Your task to perform on an android device: stop showing notifications on the lock screen Image 0: 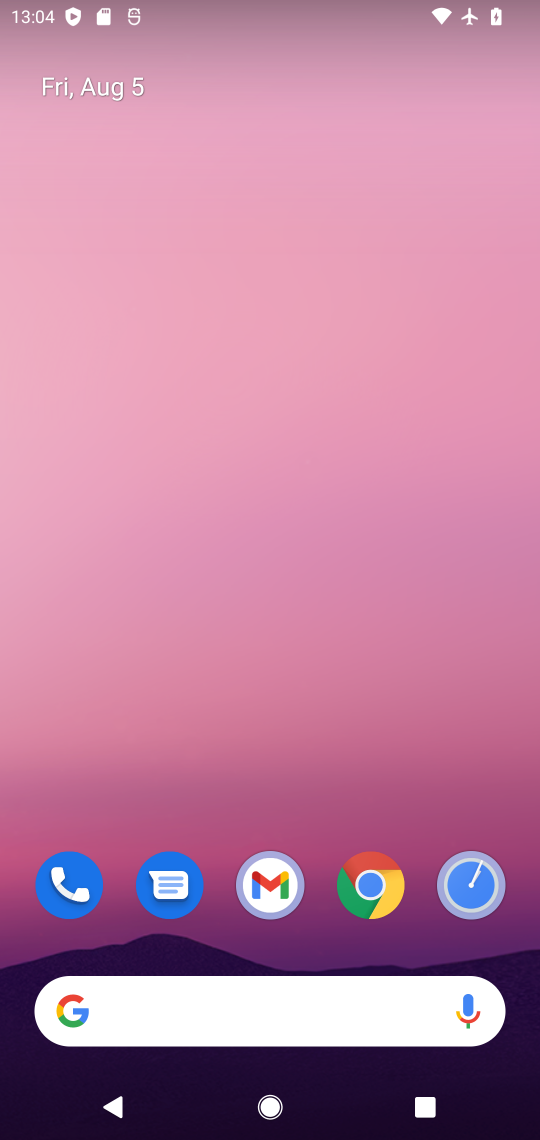
Step 0: drag from (318, 551) to (333, 34)
Your task to perform on an android device: stop showing notifications on the lock screen Image 1: 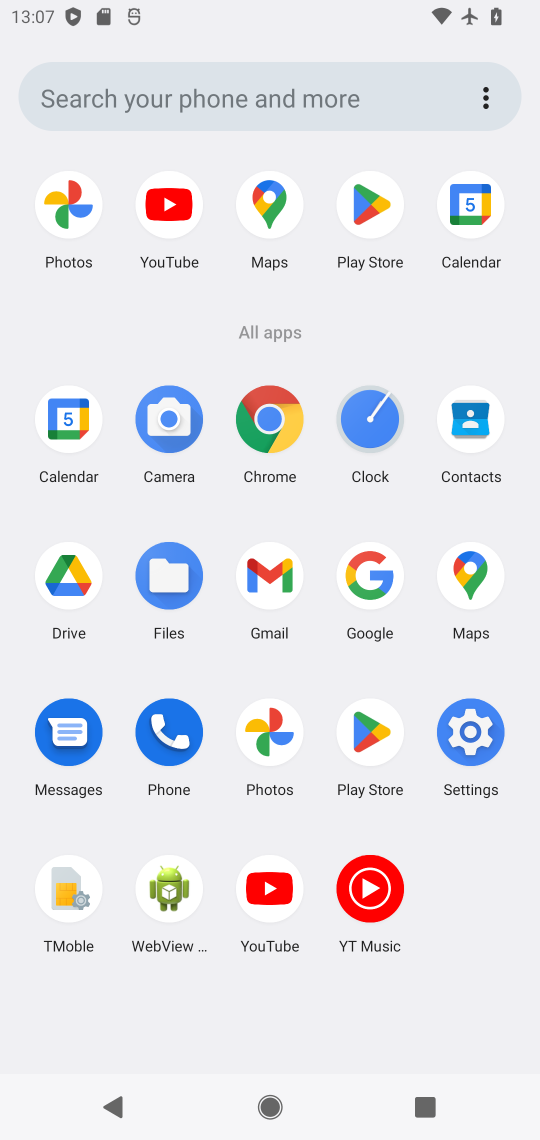
Step 1: click (465, 717)
Your task to perform on an android device: stop showing notifications on the lock screen Image 2: 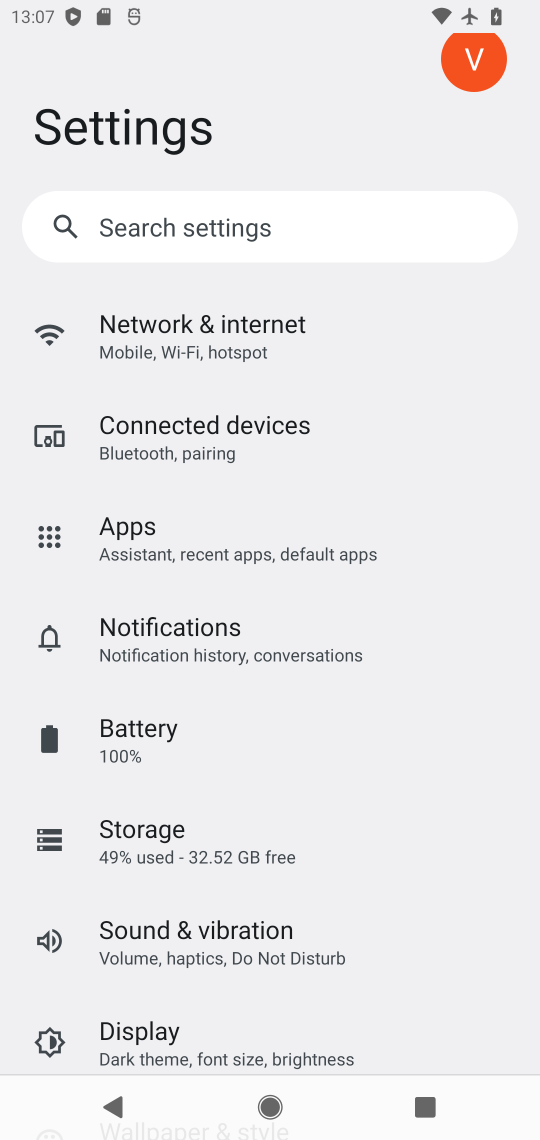
Step 2: click (181, 630)
Your task to perform on an android device: stop showing notifications on the lock screen Image 3: 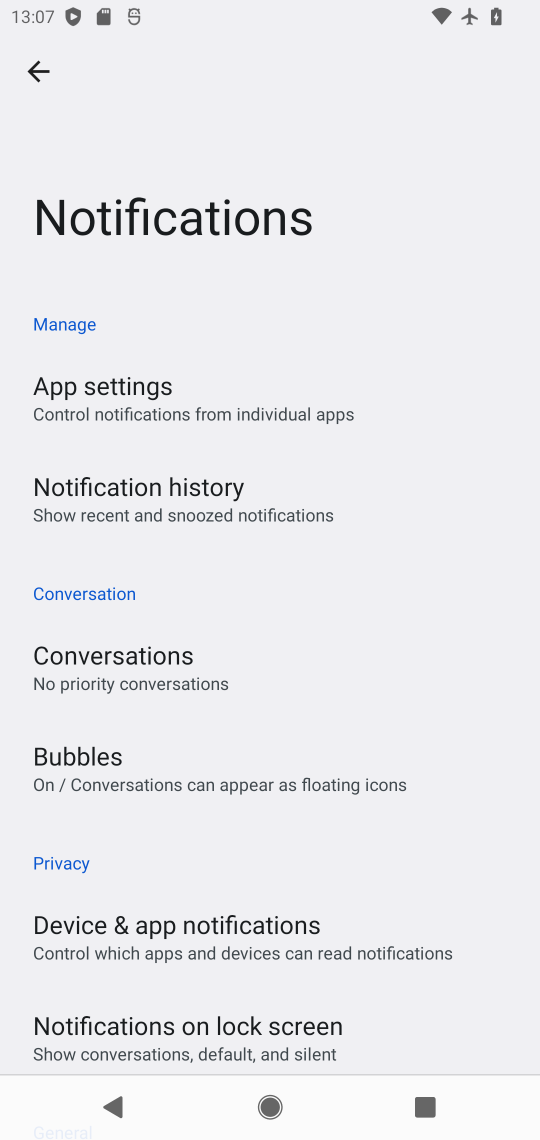
Step 3: click (201, 1051)
Your task to perform on an android device: stop showing notifications on the lock screen Image 4: 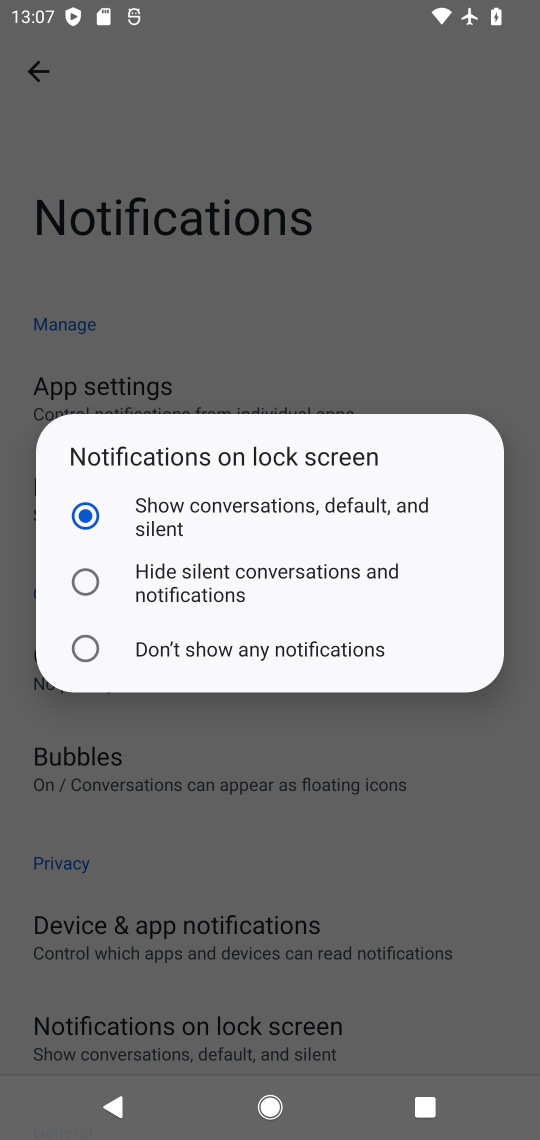
Step 4: click (91, 649)
Your task to perform on an android device: stop showing notifications on the lock screen Image 5: 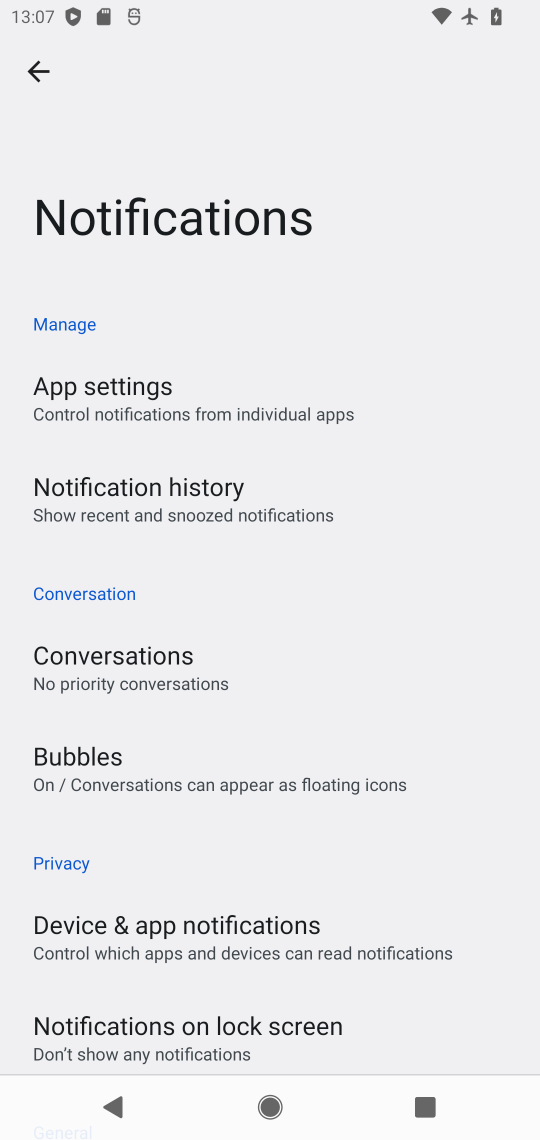
Step 5: task complete